Your task to perform on an android device: turn on bluetooth scan Image 0: 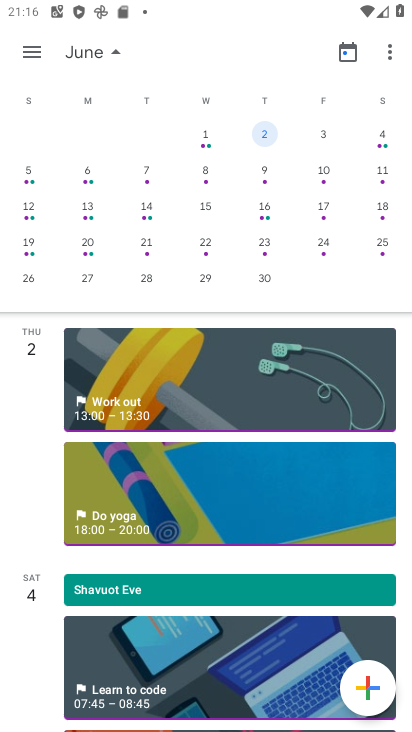
Step 0: press home button
Your task to perform on an android device: turn on bluetooth scan Image 1: 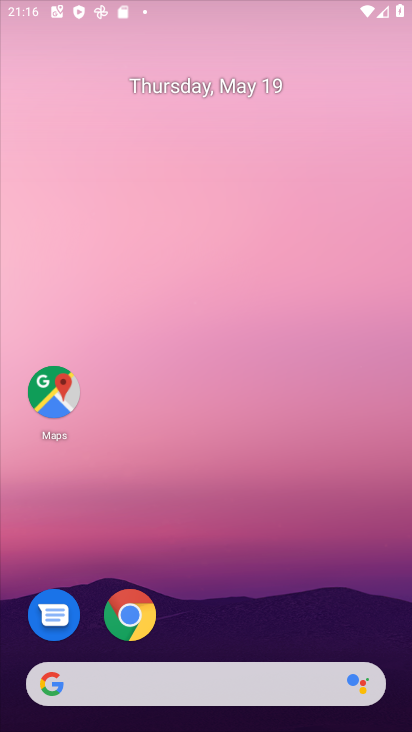
Step 1: drag from (239, 582) to (244, 64)
Your task to perform on an android device: turn on bluetooth scan Image 2: 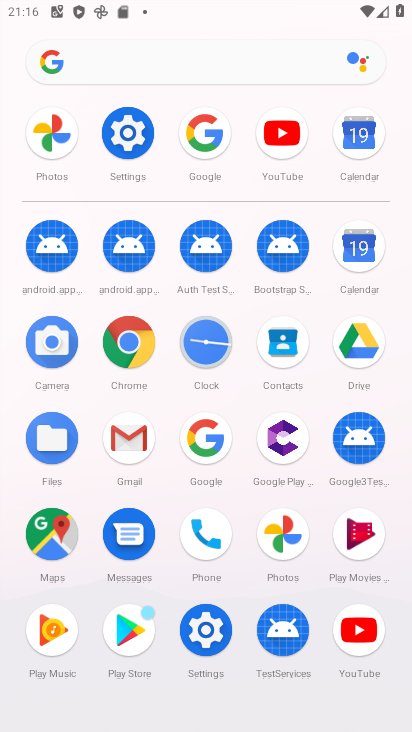
Step 2: click (130, 132)
Your task to perform on an android device: turn on bluetooth scan Image 3: 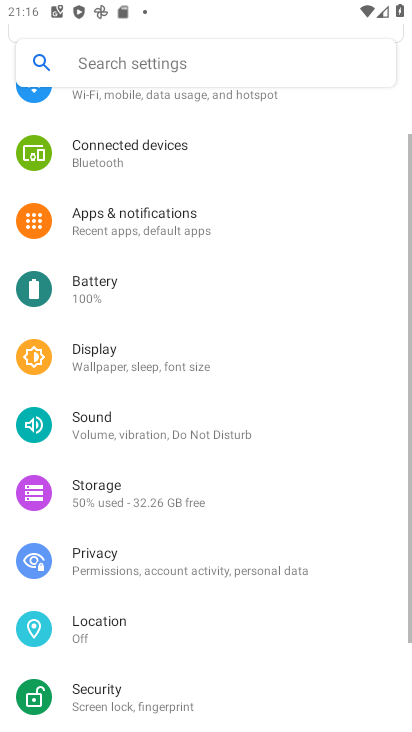
Step 3: click (111, 626)
Your task to perform on an android device: turn on bluetooth scan Image 4: 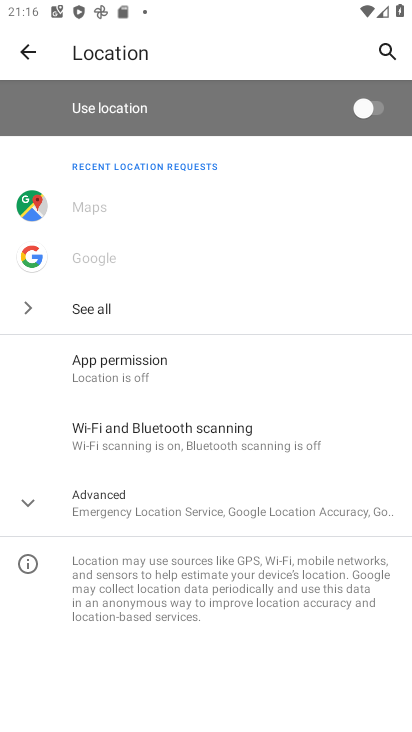
Step 4: click (183, 427)
Your task to perform on an android device: turn on bluetooth scan Image 5: 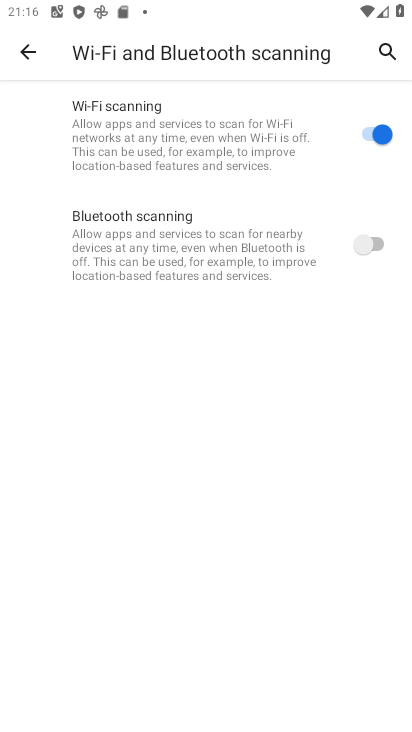
Step 5: click (371, 243)
Your task to perform on an android device: turn on bluetooth scan Image 6: 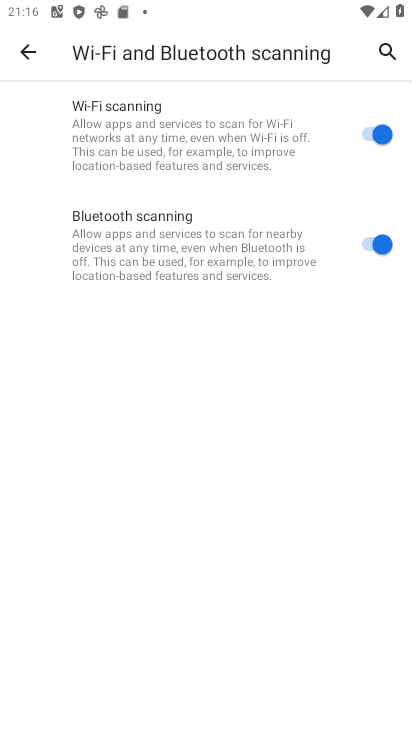
Step 6: task complete